Your task to perform on an android device: Open the Play Movies app and select the watchlist tab. Image 0: 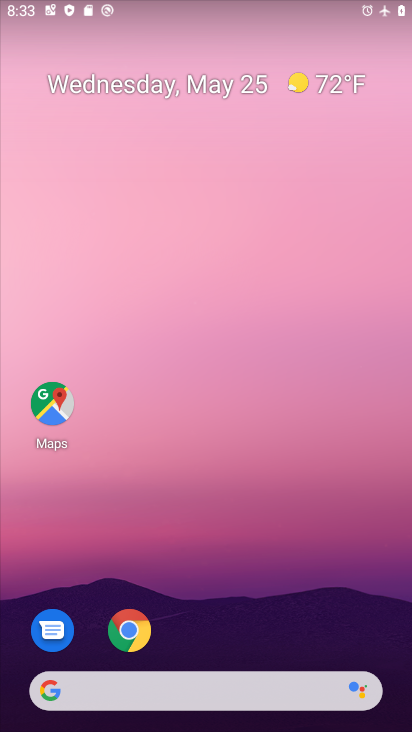
Step 0: drag from (200, 650) to (208, 253)
Your task to perform on an android device: Open the Play Movies app and select the watchlist tab. Image 1: 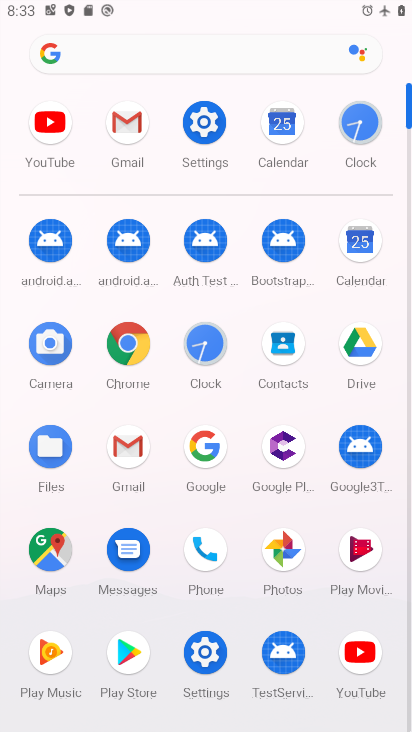
Step 1: click (354, 540)
Your task to perform on an android device: Open the Play Movies app and select the watchlist tab. Image 2: 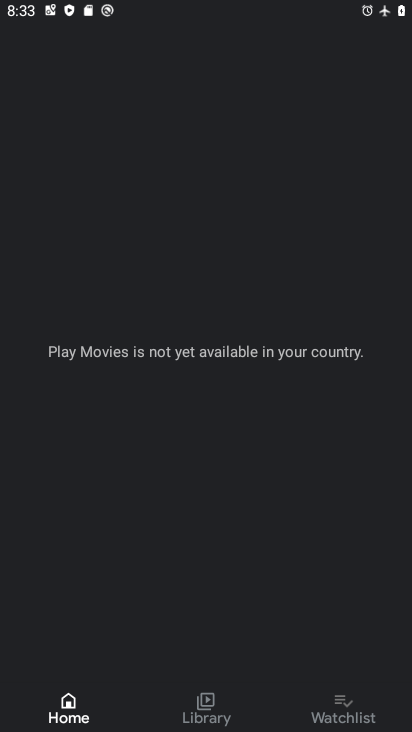
Step 2: click (333, 705)
Your task to perform on an android device: Open the Play Movies app and select the watchlist tab. Image 3: 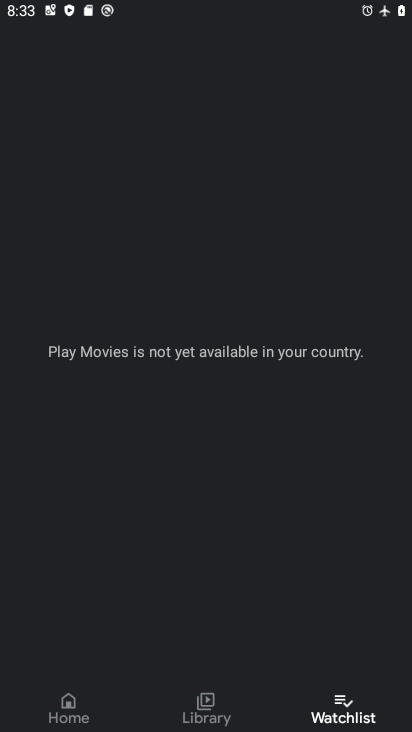
Step 3: task complete